Your task to perform on an android device: Open calendar and show me the third week of next month Image 0: 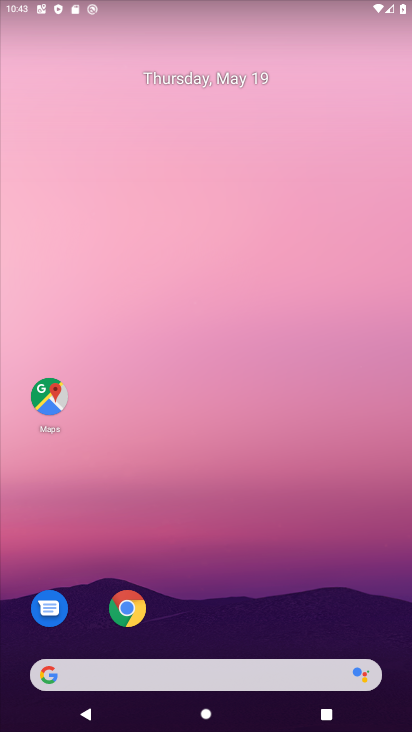
Step 0: drag from (397, 674) to (401, 168)
Your task to perform on an android device: Open calendar and show me the third week of next month Image 1: 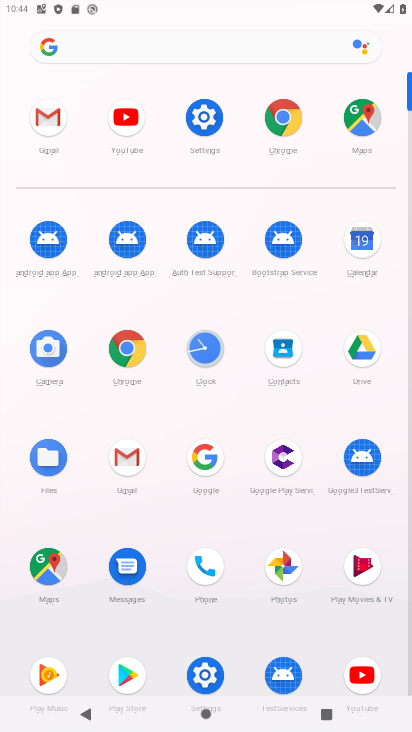
Step 1: click (356, 234)
Your task to perform on an android device: Open calendar and show me the third week of next month Image 2: 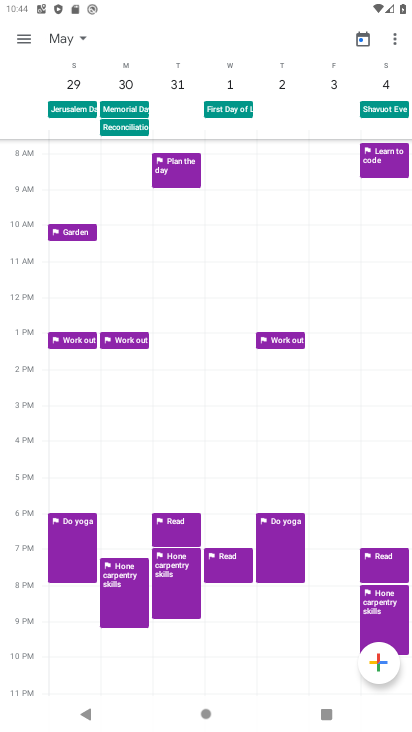
Step 2: click (78, 33)
Your task to perform on an android device: Open calendar and show me the third week of next month Image 3: 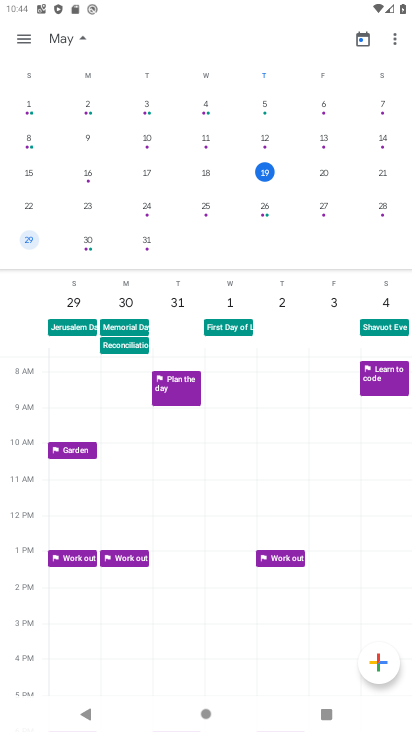
Step 3: drag from (402, 146) to (28, 166)
Your task to perform on an android device: Open calendar and show me the third week of next month Image 4: 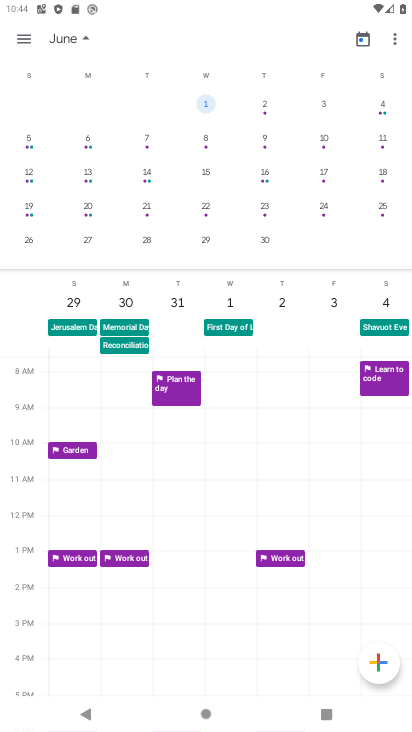
Step 4: click (201, 172)
Your task to perform on an android device: Open calendar and show me the third week of next month Image 5: 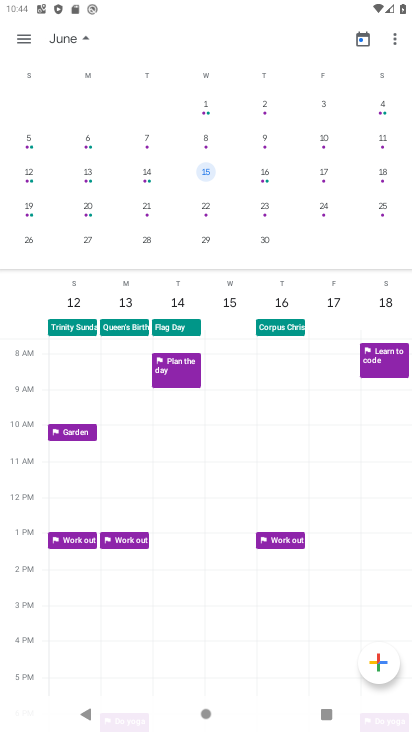
Step 5: click (21, 34)
Your task to perform on an android device: Open calendar and show me the third week of next month Image 6: 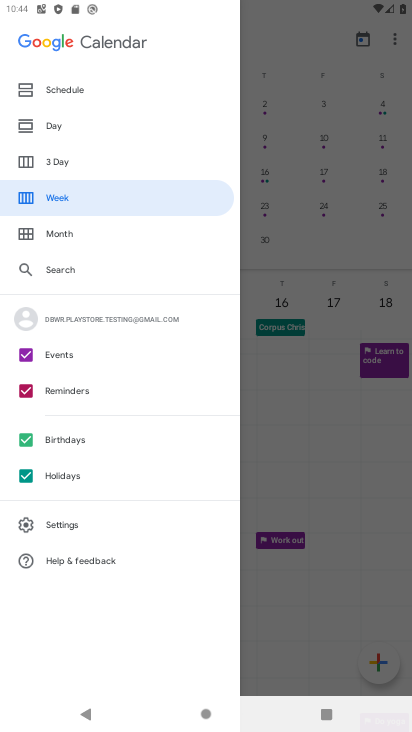
Step 6: click (39, 190)
Your task to perform on an android device: Open calendar and show me the third week of next month Image 7: 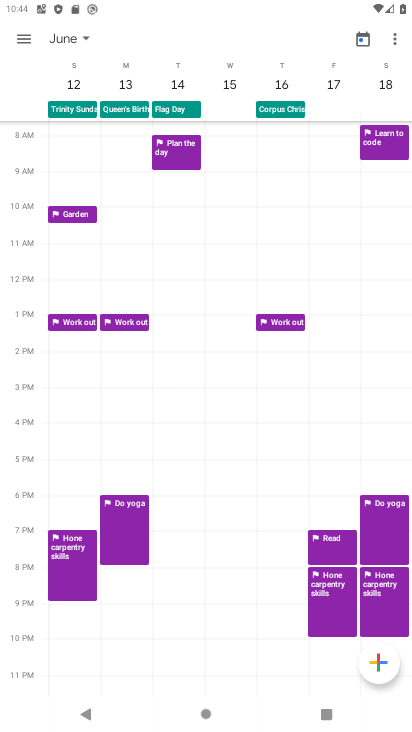
Step 7: task complete